Your task to perform on an android device: turn off picture-in-picture Image 0: 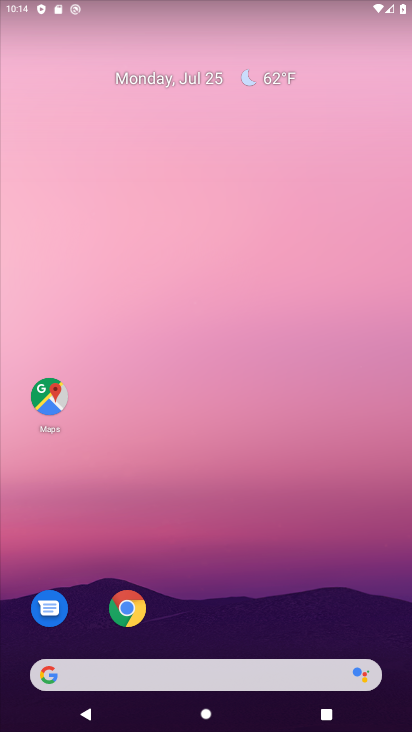
Step 0: click (137, 612)
Your task to perform on an android device: turn off picture-in-picture Image 1: 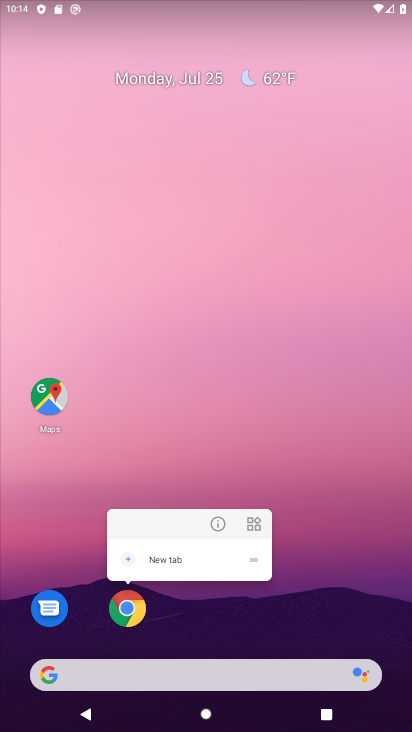
Step 1: click (213, 519)
Your task to perform on an android device: turn off picture-in-picture Image 2: 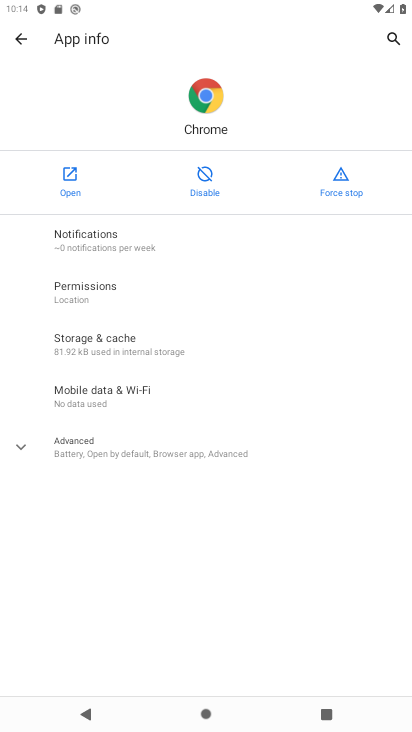
Step 2: click (151, 446)
Your task to perform on an android device: turn off picture-in-picture Image 3: 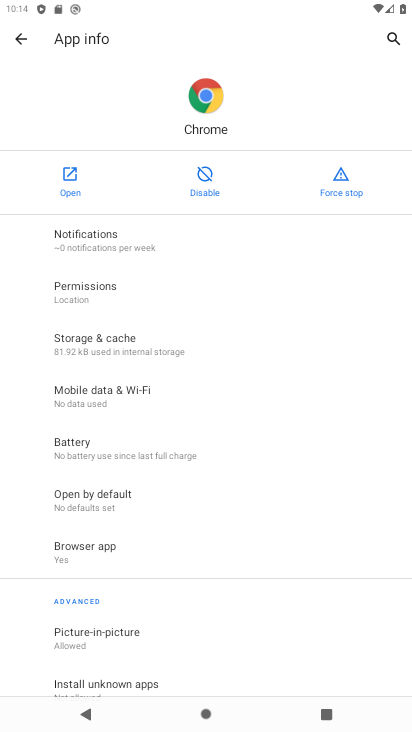
Step 3: click (118, 636)
Your task to perform on an android device: turn off picture-in-picture Image 4: 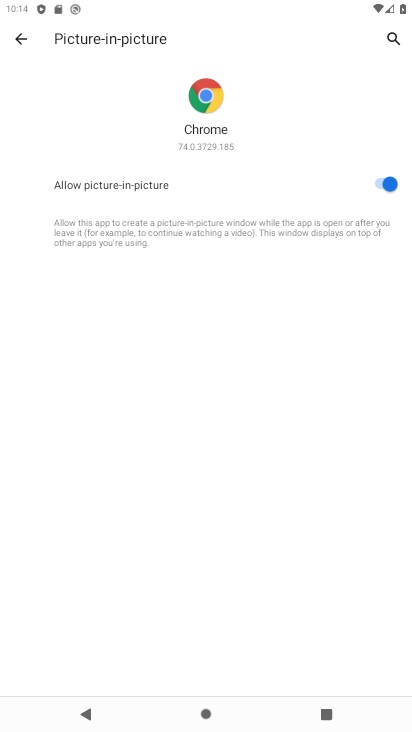
Step 4: click (383, 181)
Your task to perform on an android device: turn off picture-in-picture Image 5: 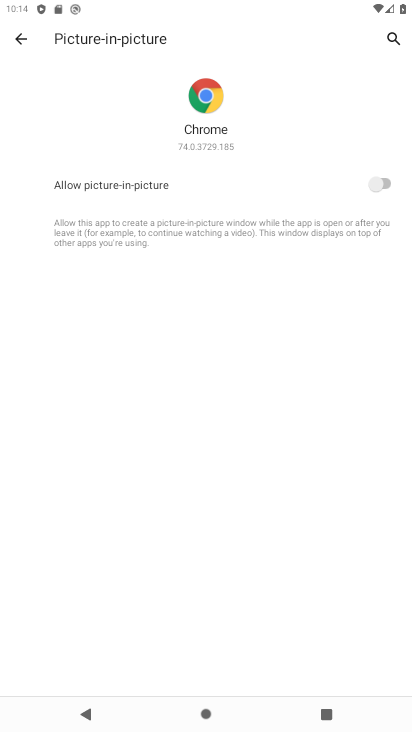
Step 5: task complete